Your task to perform on an android device: Go to battery settings Image 0: 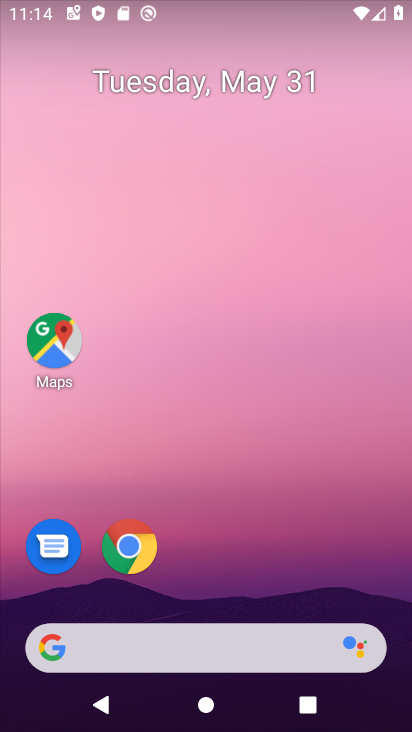
Step 0: drag from (229, 596) to (180, 173)
Your task to perform on an android device: Go to battery settings Image 1: 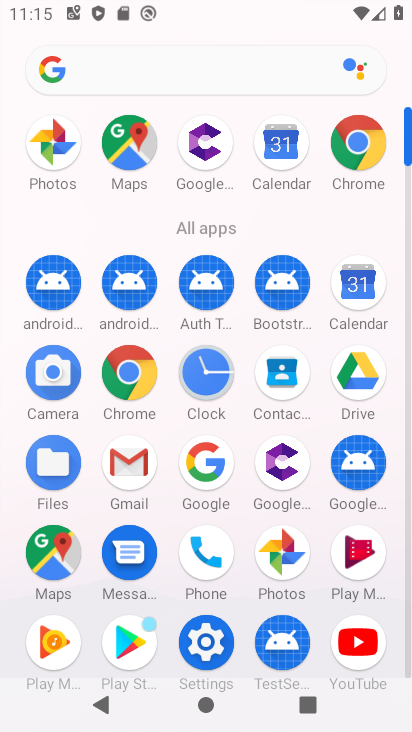
Step 1: click (217, 644)
Your task to perform on an android device: Go to battery settings Image 2: 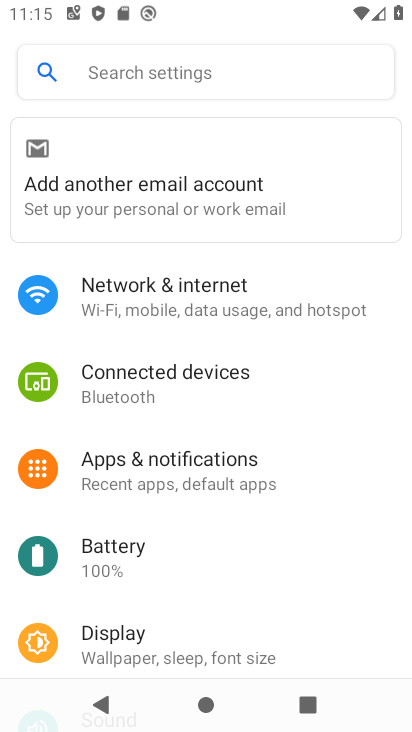
Step 2: click (233, 585)
Your task to perform on an android device: Go to battery settings Image 3: 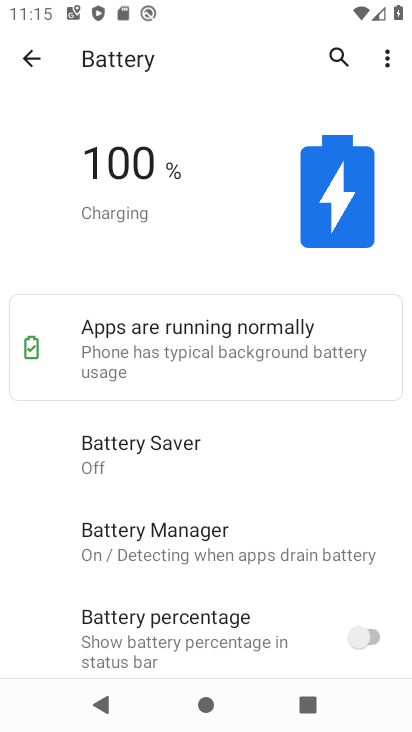
Step 3: task complete